Your task to perform on an android device: change the clock style Image 0: 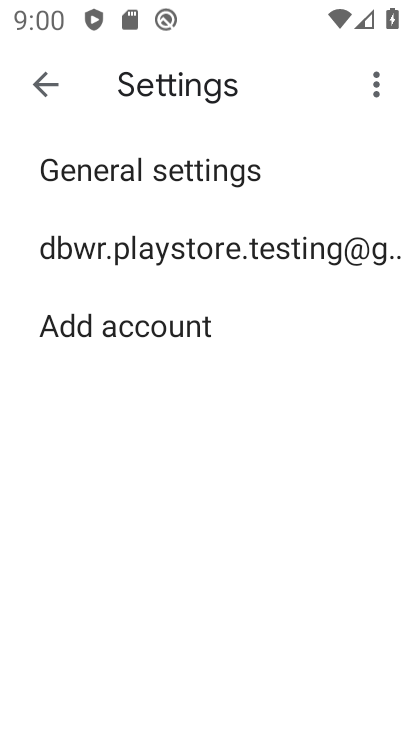
Step 0: press home button
Your task to perform on an android device: change the clock style Image 1: 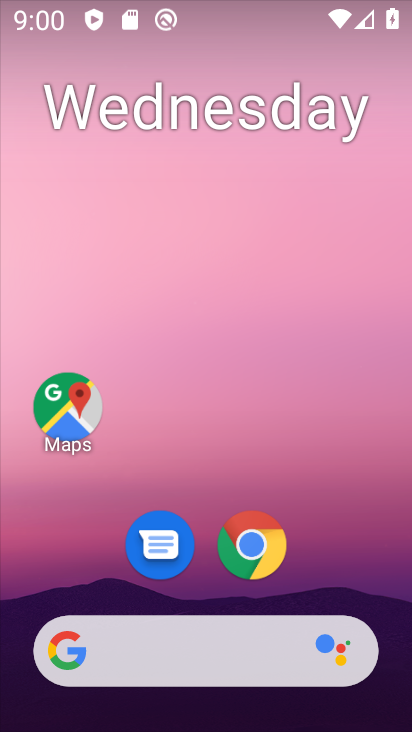
Step 1: drag from (391, 602) to (300, 210)
Your task to perform on an android device: change the clock style Image 2: 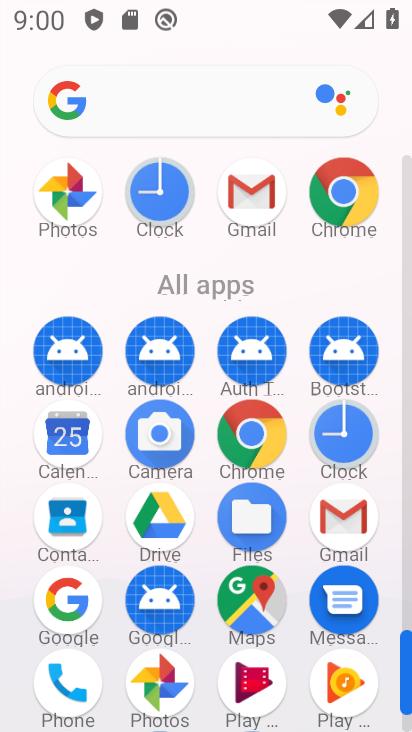
Step 2: click (171, 211)
Your task to perform on an android device: change the clock style Image 3: 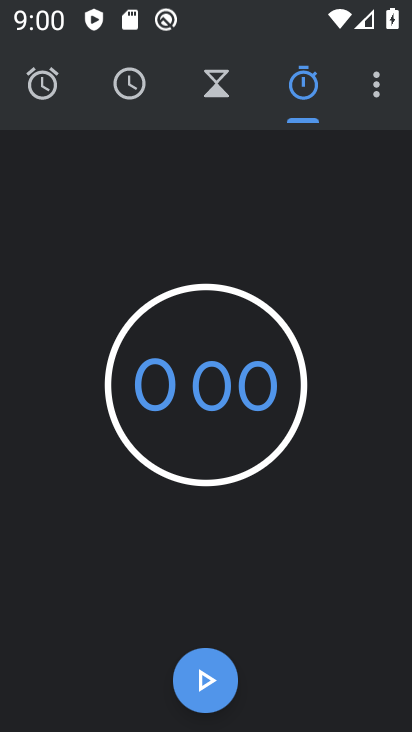
Step 3: click (386, 86)
Your task to perform on an android device: change the clock style Image 4: 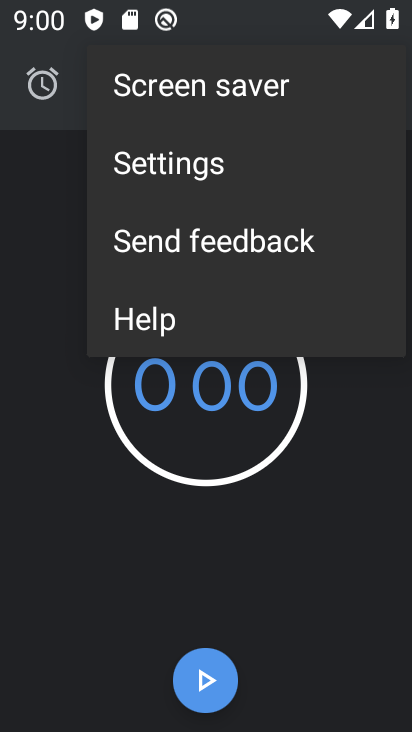
Step 4: click (280, 166)
Your task to perform on an android device: change the clock style Image 5: 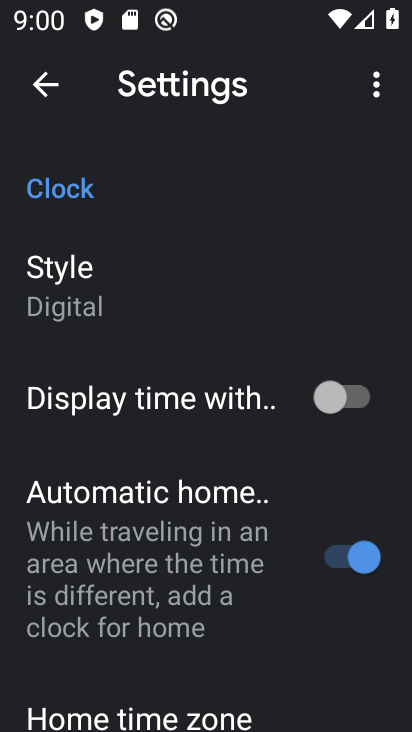
Step 5: click (241, 291)
Your task to perform on an android device: change the clock style Image 6: 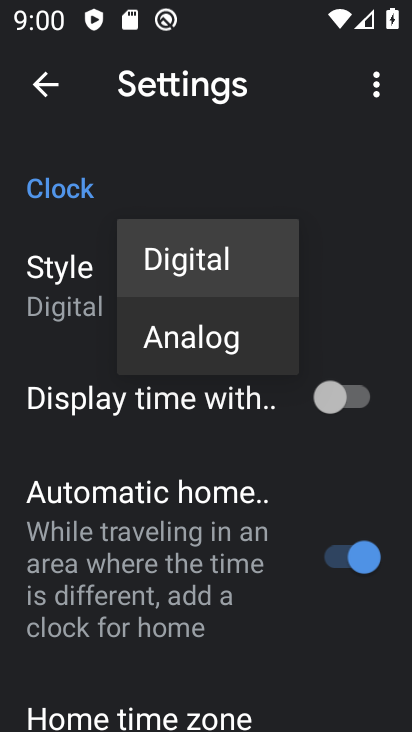
Step 6: click (246, 330)
Your task to perform on an android device: change the clock style Image 7: 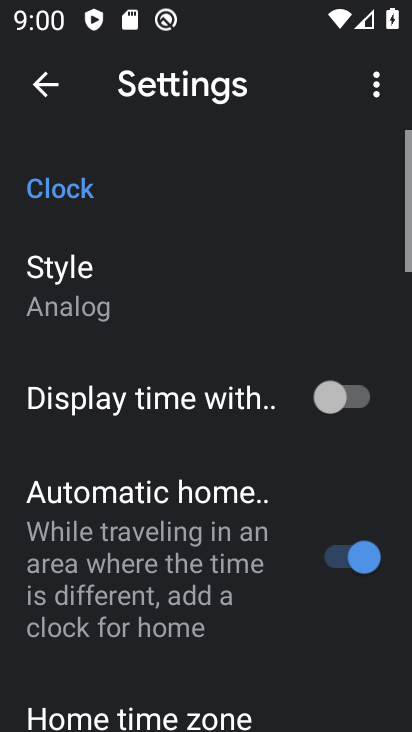
Step 7: click (246, 330)
Your task to perform on an android device: change the clock style Image 8: 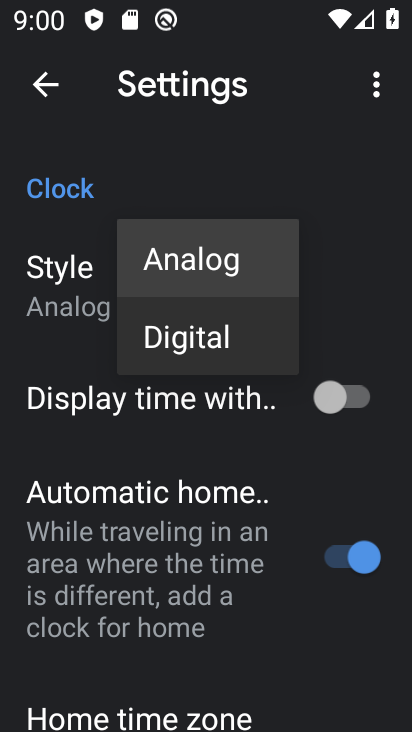
Step 8: task complete